Your task to perform on an android device: Open Google Image 0: 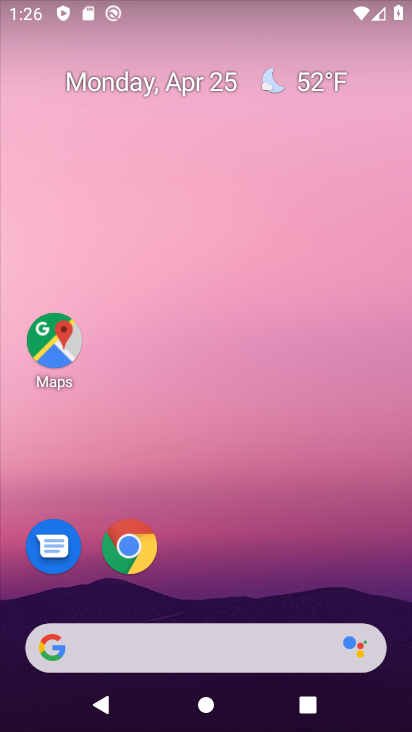
Step 0: drag from (19, 241) to (391, 250)
Your task to perform on an android device: Open Google Image 1: 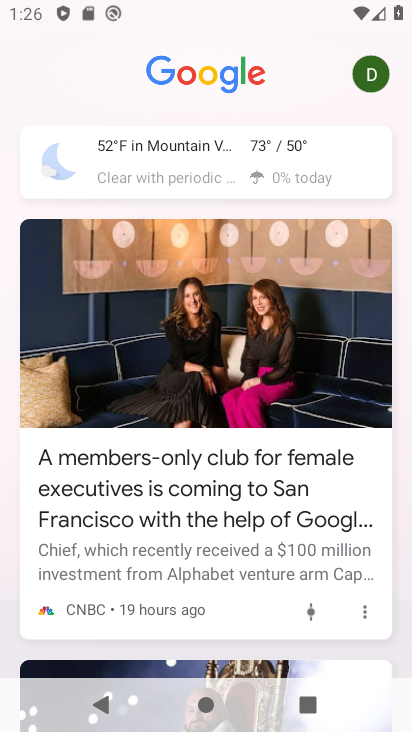
Step 1: click (192, 80)
Your task to perform on an android device: Open Google Image 2: 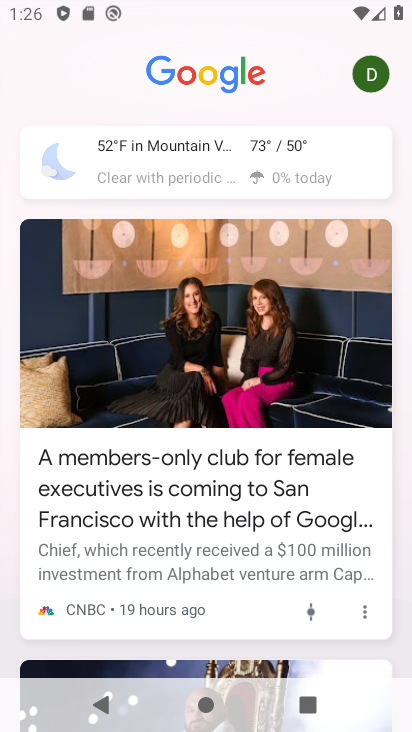
Step 2: click (192, 80)
Your task to perform on an android device: Open Google Image 3: 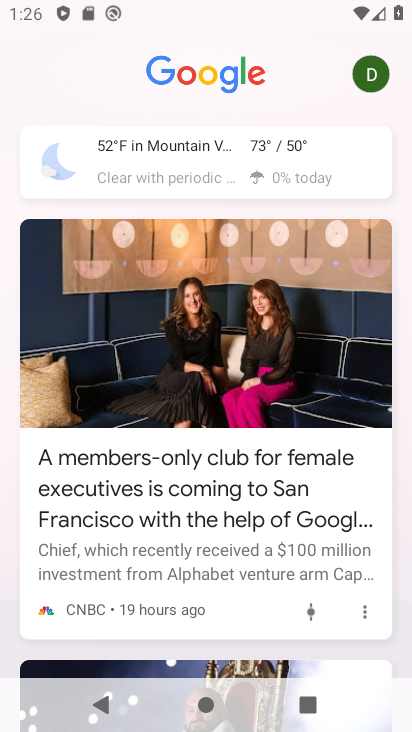
Step 3: press home button
Your task to perform on an android device: Open Google Image 4: 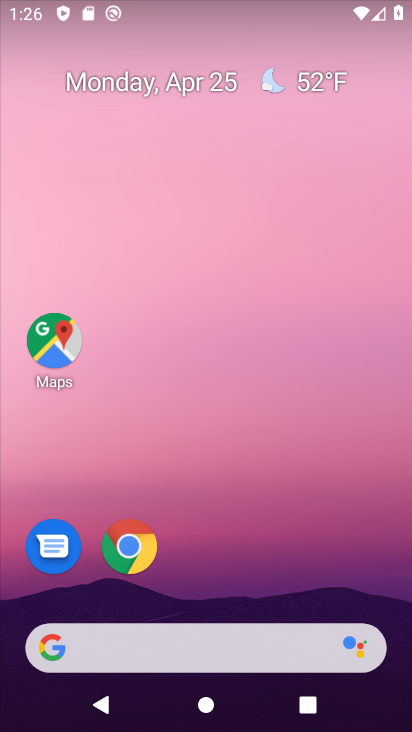
Step 4: drag from (173, 652) to (153, 10)
Your task to perform on an android device: Open Google Image 5: 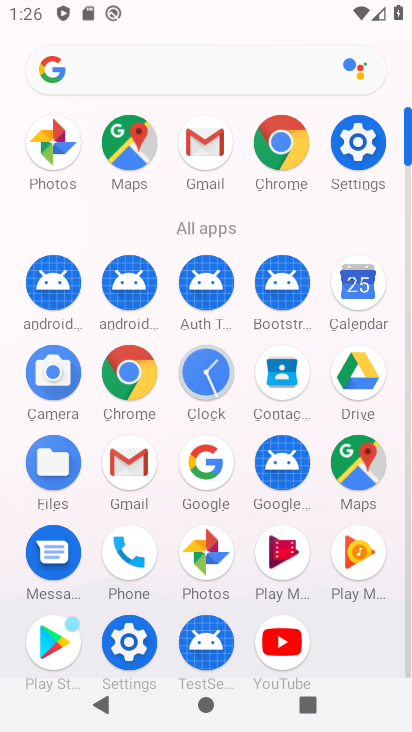
Step 5: click (196, 464)
Your task to perform on an android device: Open Google Image 6: 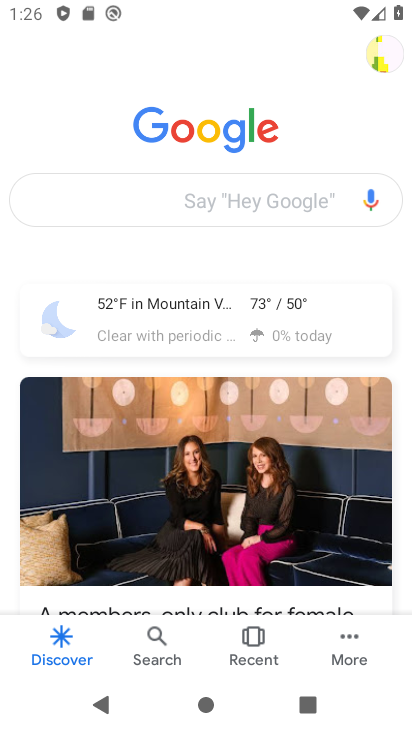
Step 6: task complete